Your task to perform on an android device: change keyboard looks Image 0: 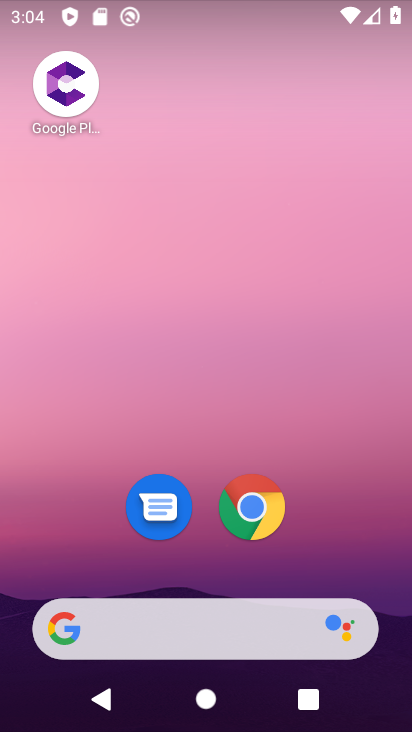
Step 0: drag from (366, 492) to (156, 35)
Your task to perform on an android device: change keyboard looks Image 1: 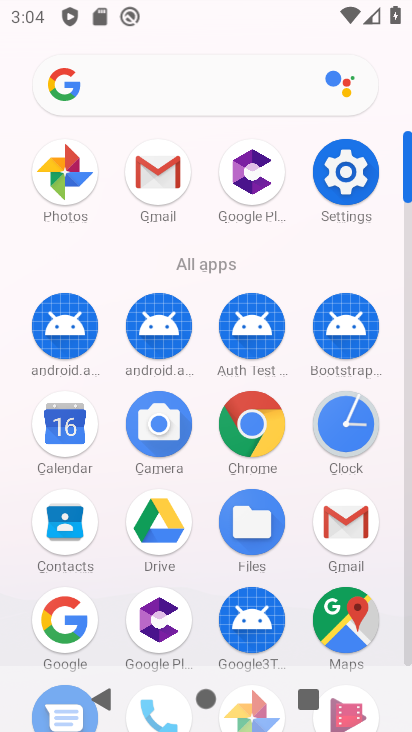
Step 1: click (338, 180)
Your task to perform on an android device: change keyboard looks Image 2: 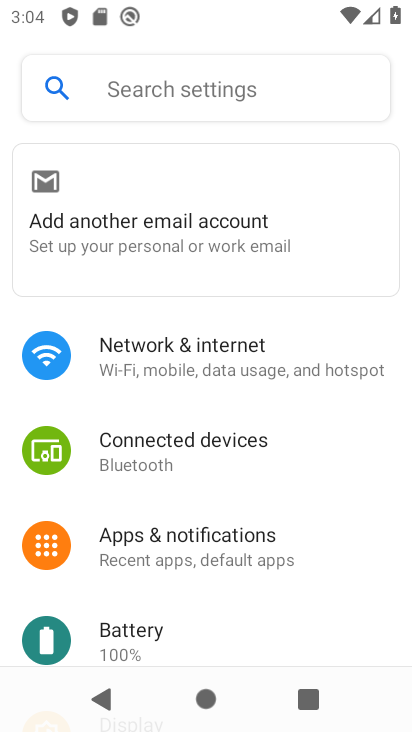
Step 2: drag from (214, 597) to (175, 81)
Your task to perform on an android device: change keyboard looks Image 3: 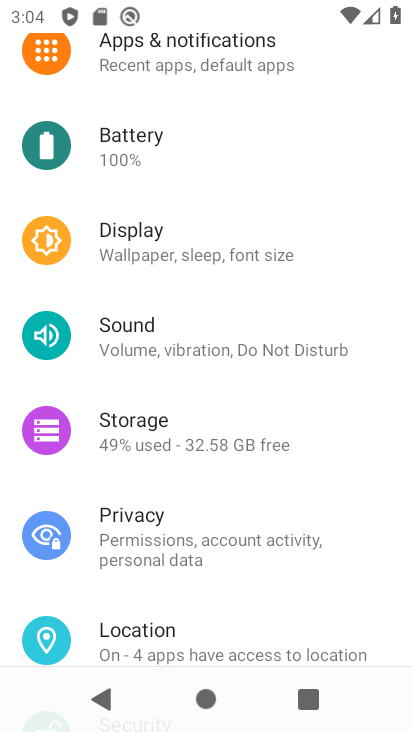
Step 3: drag from (156, 636) to (230, 189)
Your task to perform on an android device: change keyboard looks Image 4: 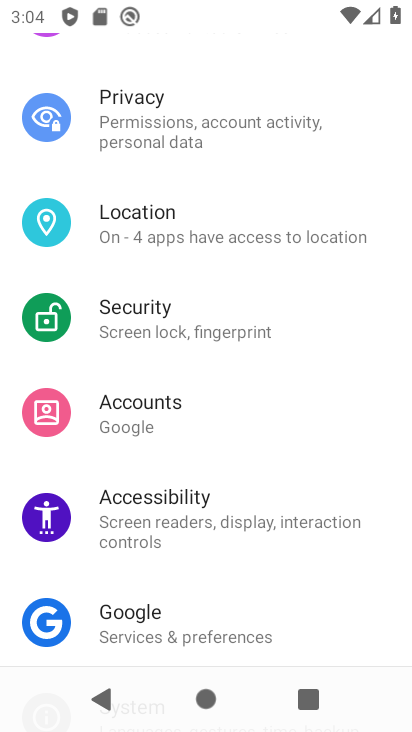
Step 4: drag from (272, 556) to (247, 208)
Your task to perform on an android device: change keyboard looks Image 5: 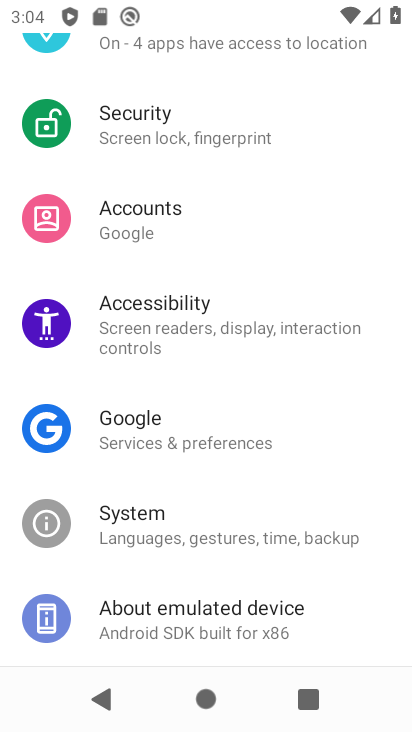
Step 5: click (207, 531)
Your task to perform on an android device: change keyboard looks Image 6: 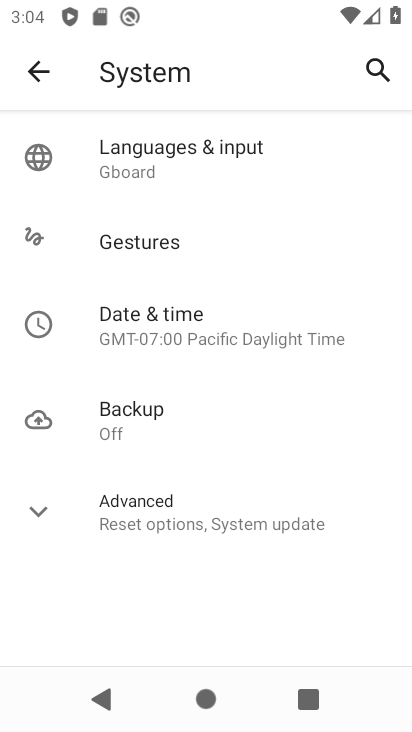
Step 6: click (169, 153)
Your task to perform on an android device: change keyboard looks Image 7: 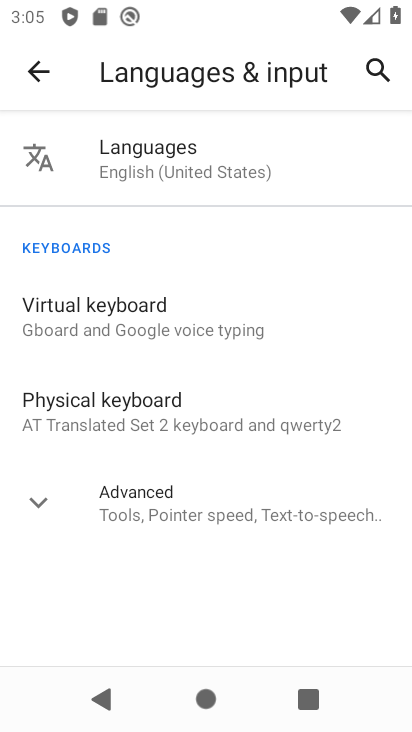
Step 7: click (119, 315)
Your task to perform on an android device: change keyboard looks Image 8: 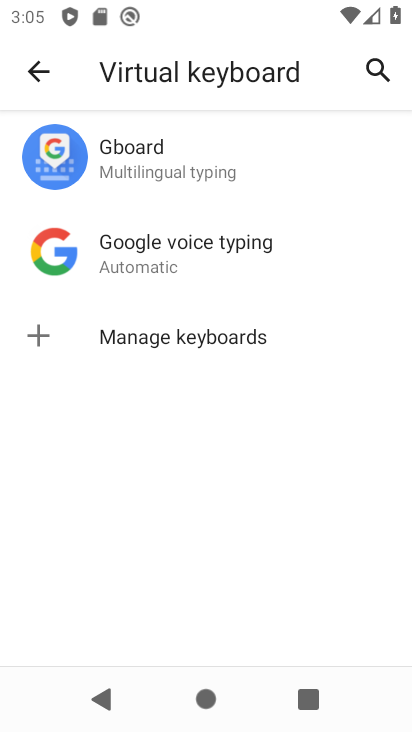
Step 8: click (190, 181)
Your task to perform on an android device: change keyboard looks Image 9: 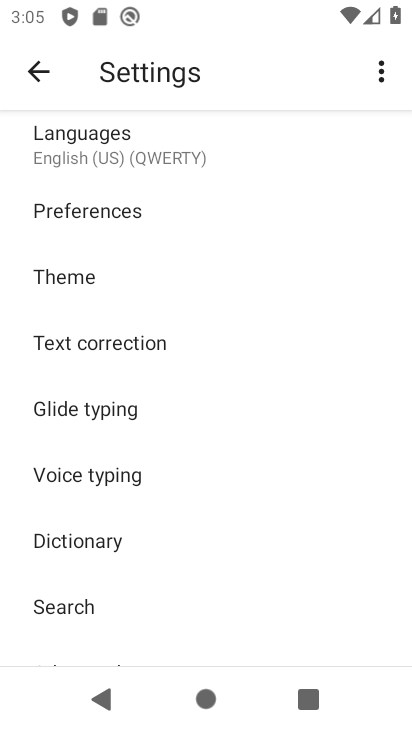
Step 9: click (122, 285)
Your task to perform on an android device: change keyboard looks Image 10: 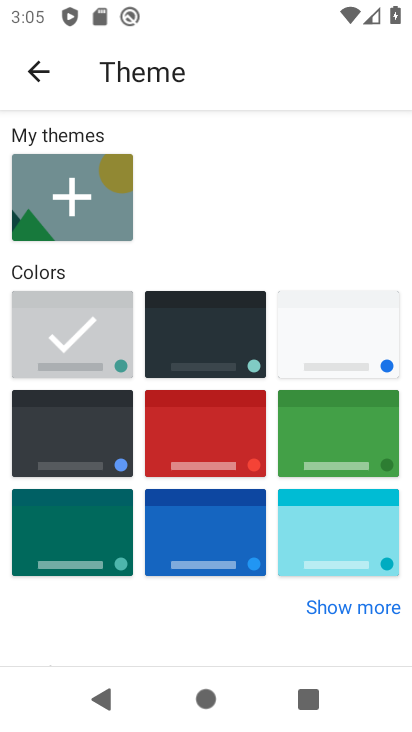
Step 10: click (171, 330)
Your task to perform on an android device: change keyboard looks Image 11: 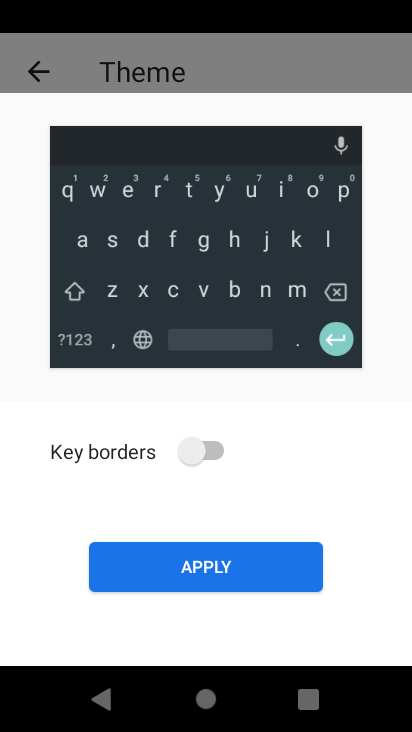
Step 11: click (226, 562)
Your task to perform on an android device: change keyboard looks Image 12: 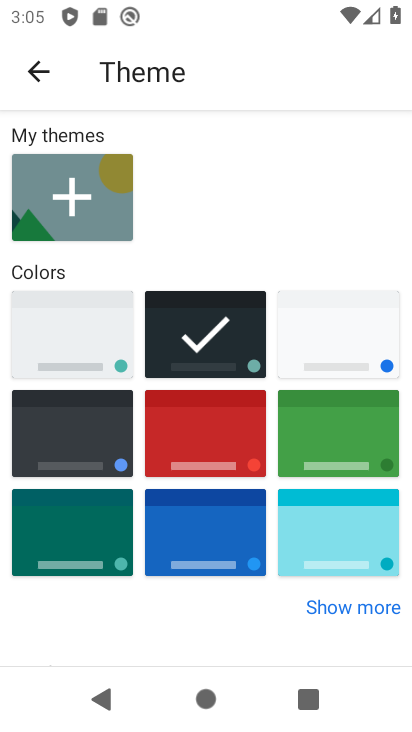
Step 12: task complete